Your task to perform on an android device: turn on sleep mode Image 0: 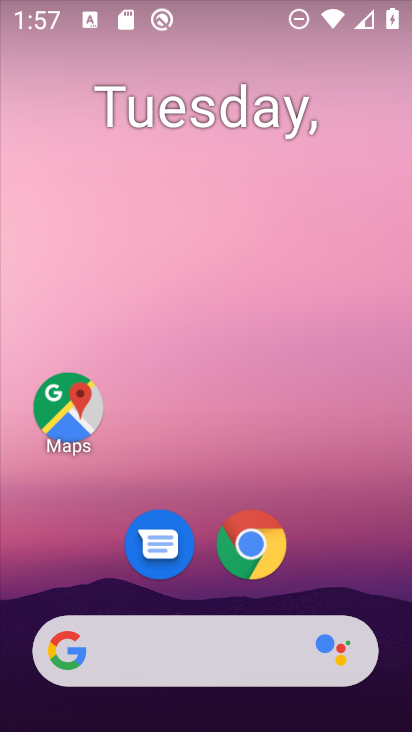
Step 0: drag from (389, 628) to (368, 179)
Your task to perform on an android device: turn on sleep mode Image 1: 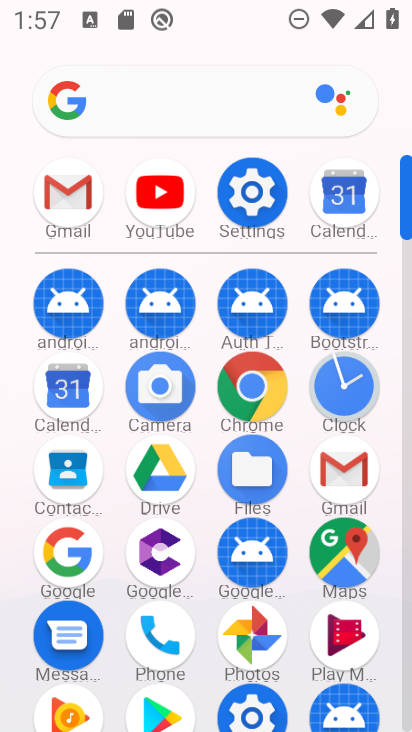
Step 1: click (409, 691)
Your task to perform on an android device: turn on sleep mode Image 2: 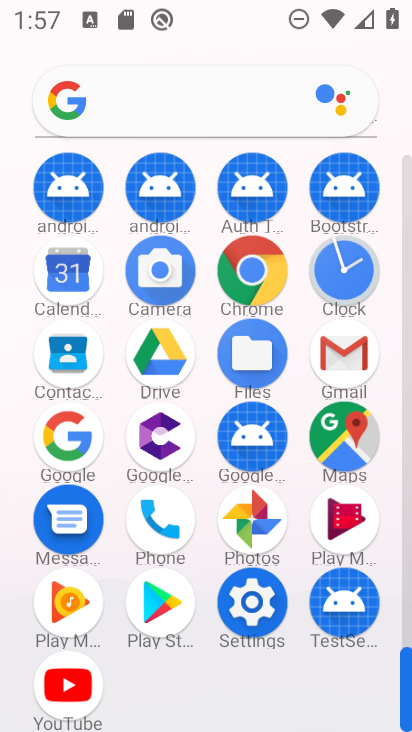
Step 2: click (253, 601)
Your task to perform on an android device: turn on sleep mode Image 3: 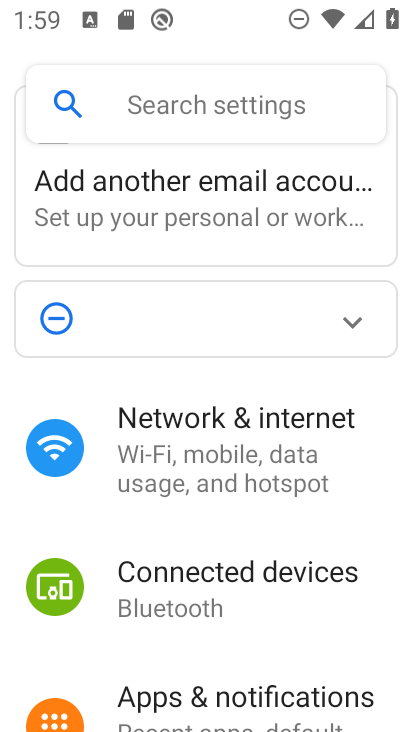
Step 3: drag from (248, 721) to (255, 196)
Your task to perform on an android device: turn on sleep mode Image 4: 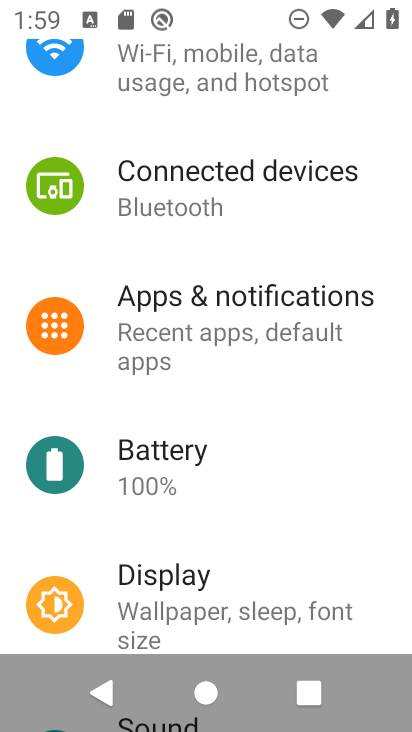
Step 4: drag from (227, 557) to (243, 201)
Your task to perform on an android device: turn on sleep mode Image 5: 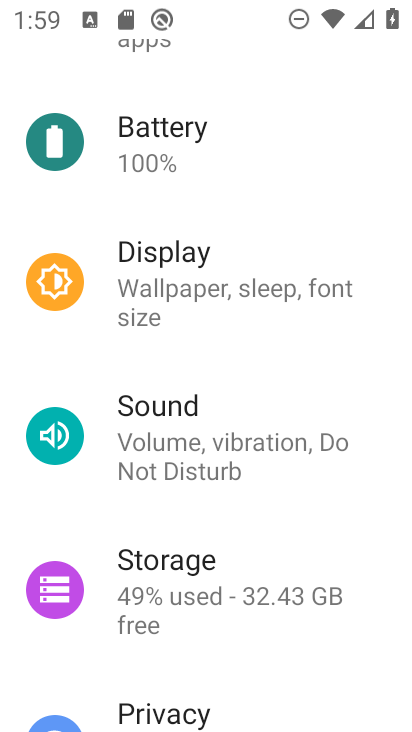
Step 5: click (197, 260)
Your task to perform on an android device: turn on sleep mode Image 6: 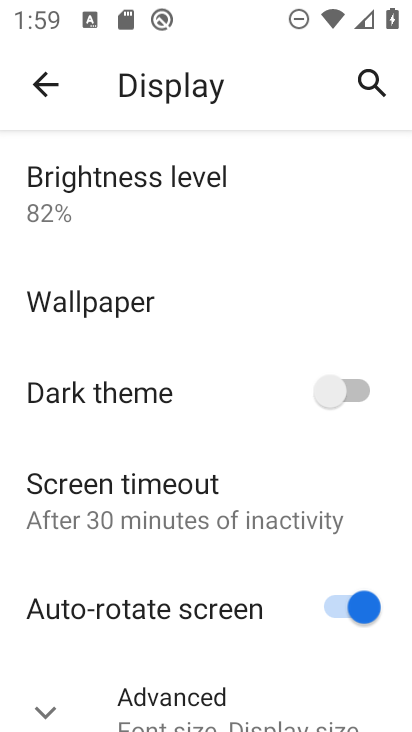
Step 6: drag from (182, 523) to (186, 235)
Your task to perform on an android device: turn on sleep mode Image 7: 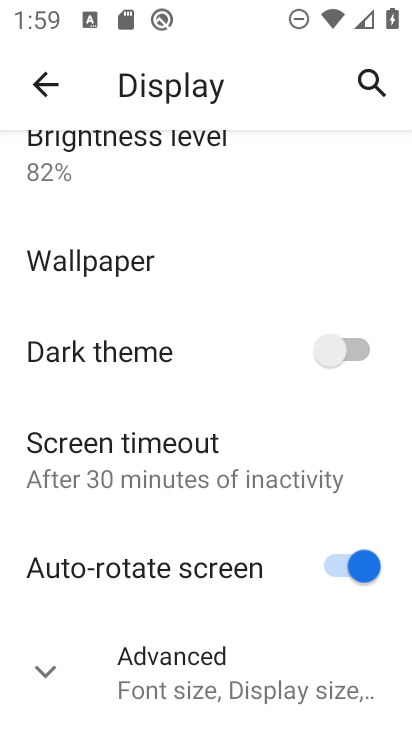
Step 7: click (45, 651)
Your task to perform on an android device: turn on sleep mode Image 8: 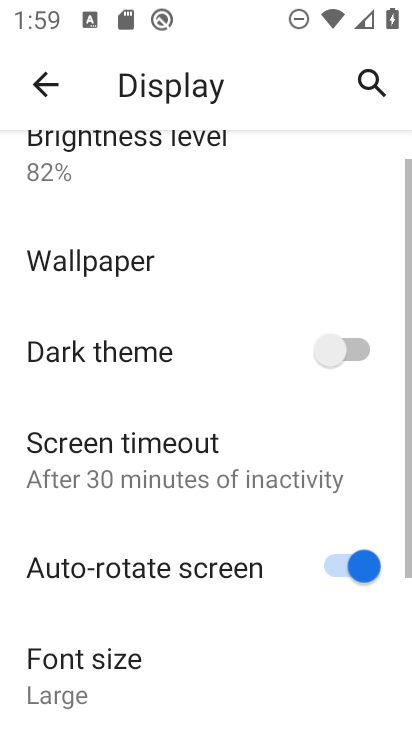
Step 8: task complete